Your task to perform on an android device: Go to wifi settings Image 0: 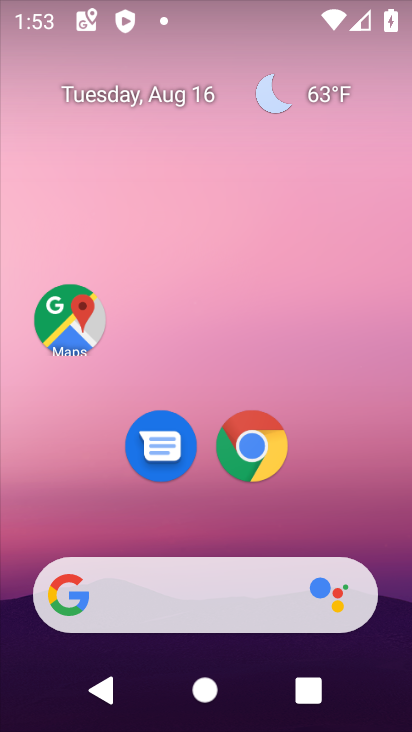
Step 0: press home button
Your task to perform on an android device: Go to wifi settings Image 1: 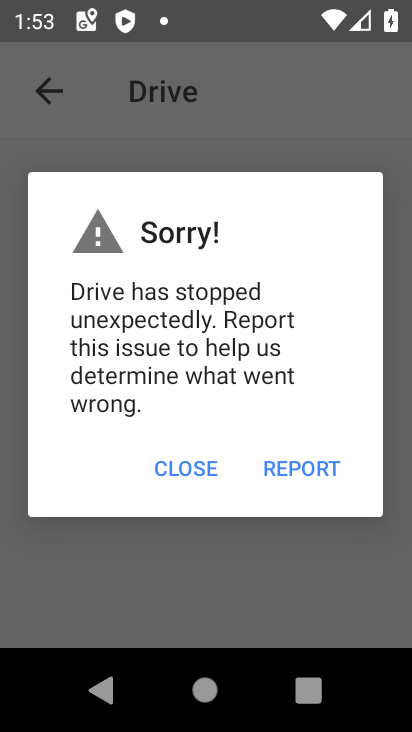
Step 1: click (257, 112)
Your task to perform on an android device: Go to wifi settings Image 2: 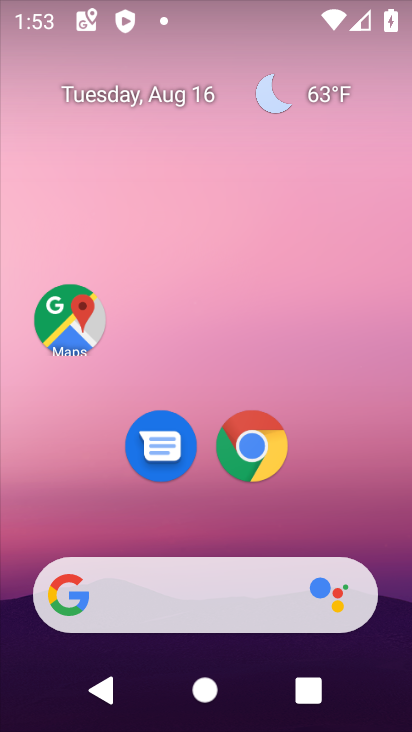
Step 2: drag from (206, 528) to (230, 41)
Your task to perform on an android device: Go to wifi settings Image 3: 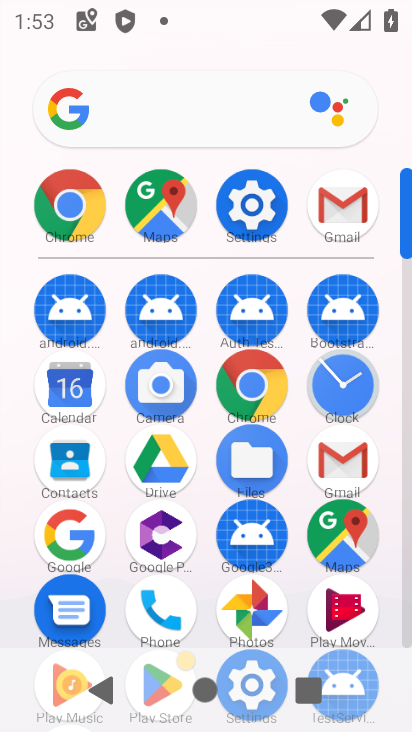
Step 3: click (250, 200)
Your task to perform on an android device: Go to wifi settings Image 4: 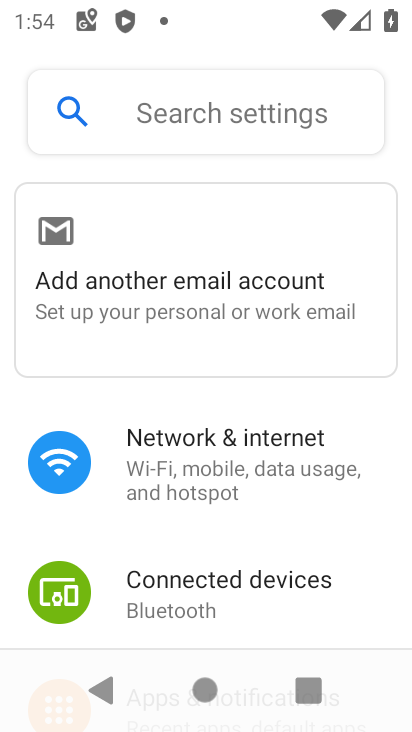
Step 4: click (244, 455)
Your task to perform on an android device: Go to wifi settings Image 5: 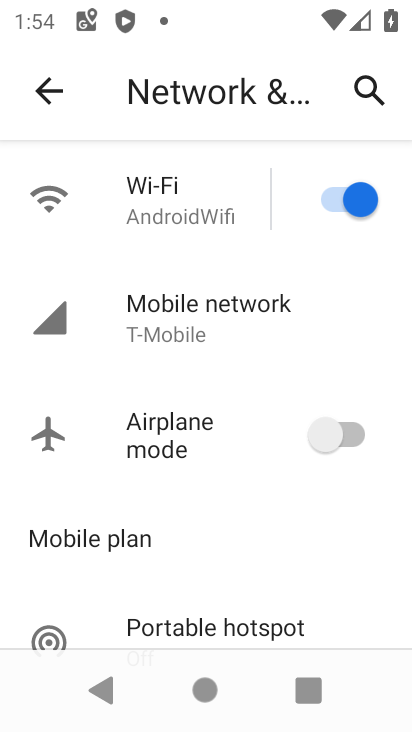
Step 5: click (224, 187)
Your task to perform on an android device: Go to wifi settings Image 6: 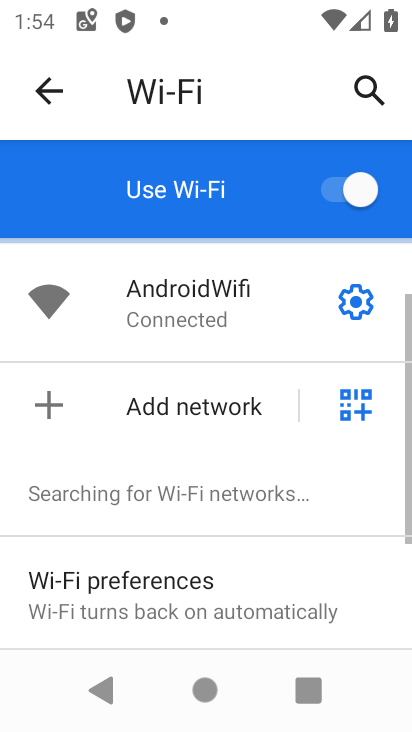
Step 6: task complete